Your task to perform on an android device: Do I have any events tomorrow? Image 0: 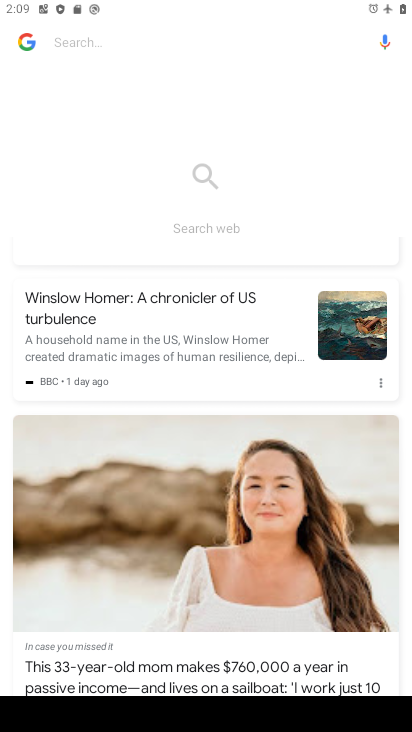
Step 0: press home button
Your task to perform on an android device: Do I have any events tomorrow? Image 1: 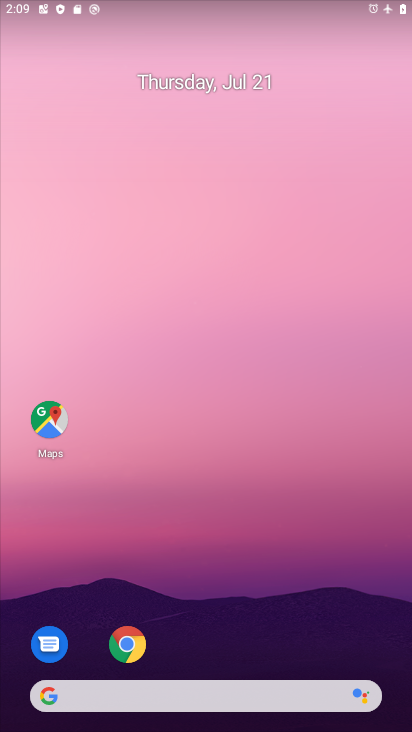
Step 1: drag from (134, 669) to (225, 136)
Your task to perform on an android device: Do I have any events tomorrow? Image 2: 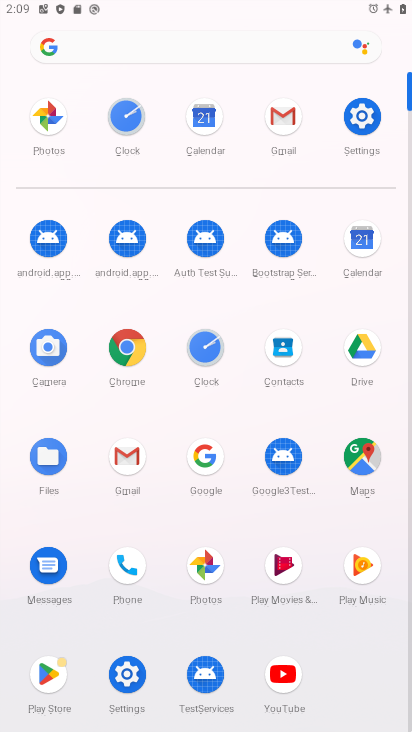
Step 2: click (354, 245)
Your task to perform on an android device: Do I have any events tomorrow? Image 3: 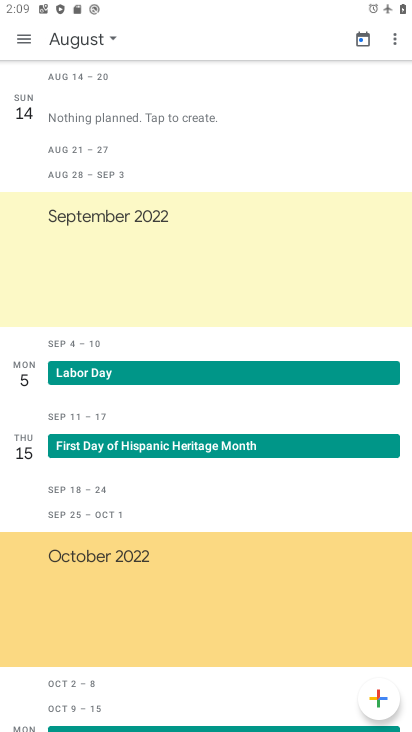
Step 3: click (117, 36)
Your task to perform on an android device: Do I have any events tomorrow? Image 4: 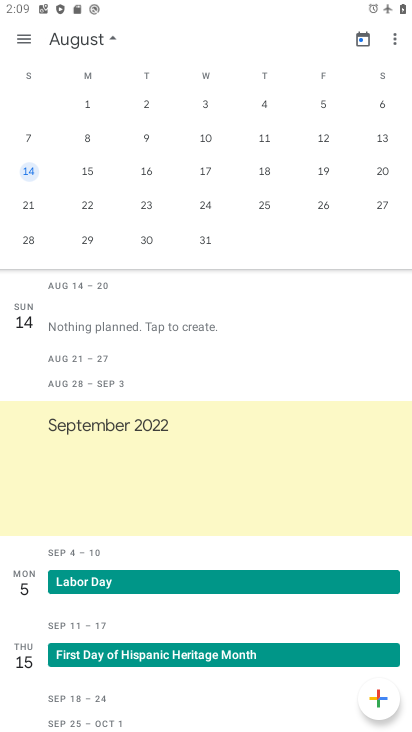
Step 4: drag from (72, 192) to (391, 202)
Your task to perform on an android device: Do I have any events tomorrow? Image 5: 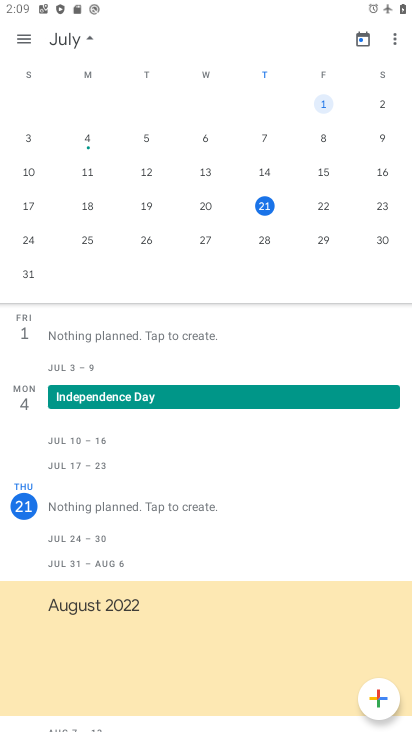
Step 5: click (326, 202)
Your task to perform on an android device: Do I have any events tomorrow? Image 6: 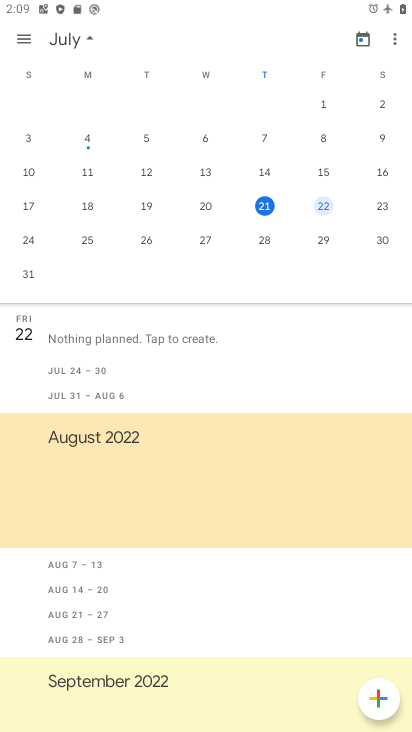
Step 6: task complete